Your task to perform on an android device: open app "Expedia: Hotels, Flights & Car" (install if not already installed) and go to login screen Image 0: 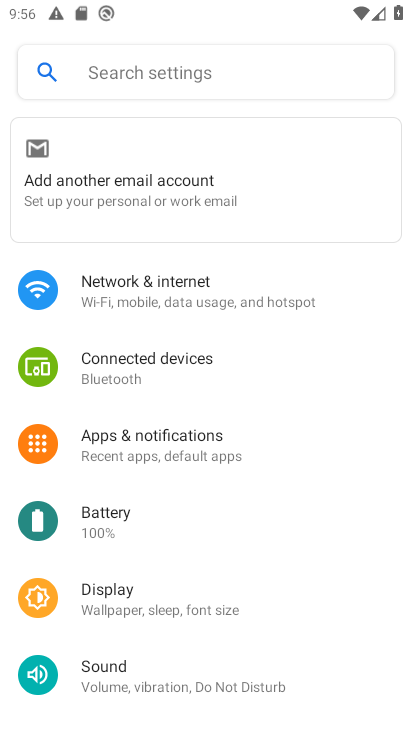
Step 0: press home button
Your task to perform on an android device: open app "Expedia: Hotels, Flights & Car" (install if not already installed) and go to login screen Image 1: 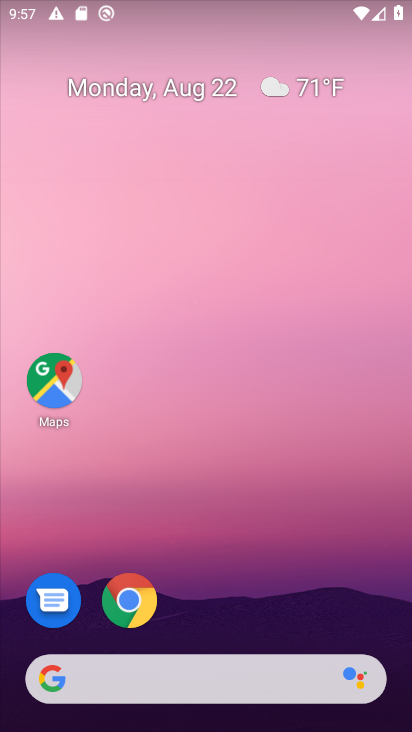
Step 1: drag from (202, 563) to (187, 229)
Your task to perform on an android device: open app "Expedia: Hotels, Flights & Car" (install if not already installed) and go to login screen Image 2: 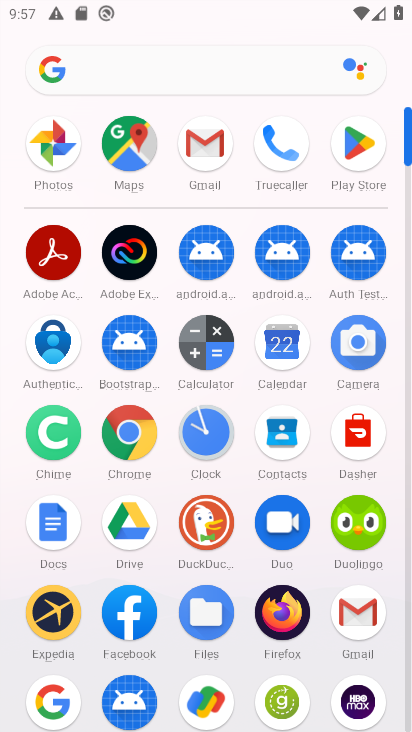
Step 2: click (363, 150)
Your task to perform on an android device: open app "Expedia: Hotels, Flights & Car" (install if not already installed) and go to login screen Image 3: 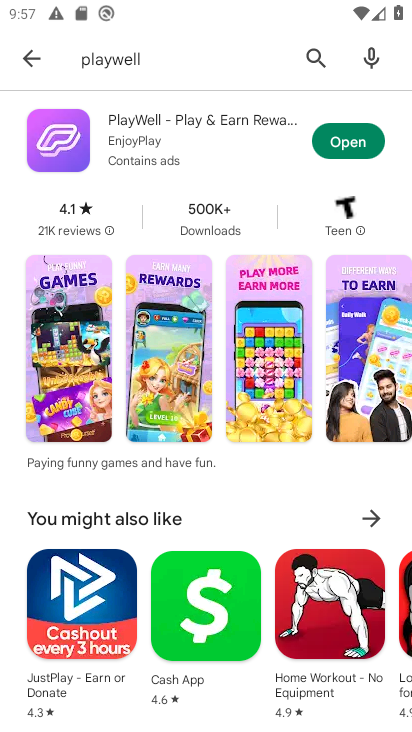
Step 3: click (317, 57)
Your task to perform on an android device: open app "Expedia: Hotels, Flights & Car" (install if not already installed) and go to login screen Image 4: 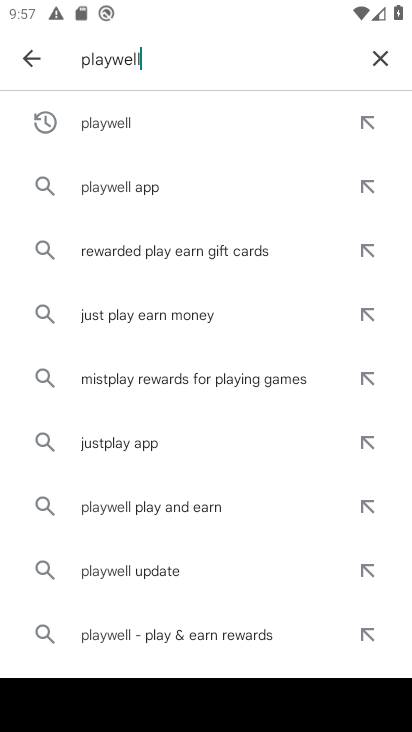
Step 4: click (371, 49)
Your task to perform on an android device: open app "Expedia: Hotels, Flights & Car" (install if not already installed) and go to login screen Image 5: 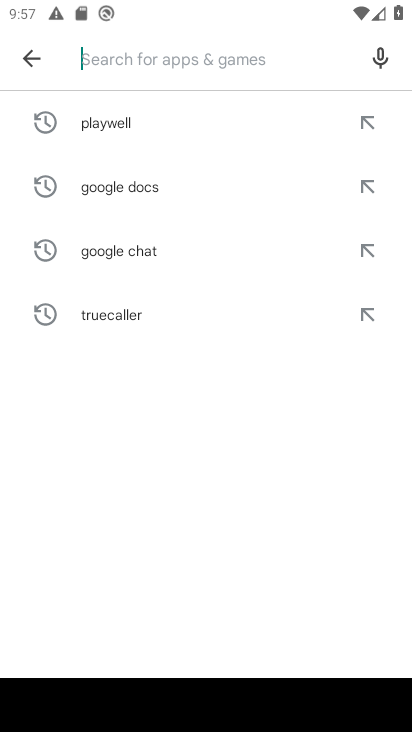
Step 5: type "Expedia: Hotels, Flights & Car"
Your task to perform on an android device: open app "Expedia: Hotels, Flights & Car" (install if not already installed) and go to login screen Image 6: 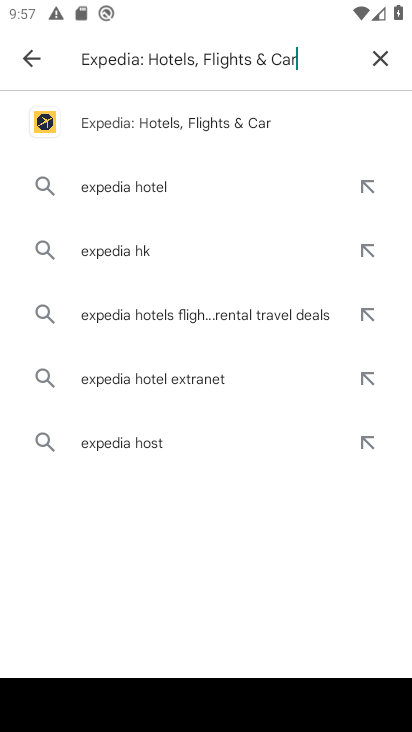
Step 6: type ""
Your task to perform on an android device: open app "Expedia: Hotels, Flights & Car" (install if not already installed) and go to login screen Image 7: 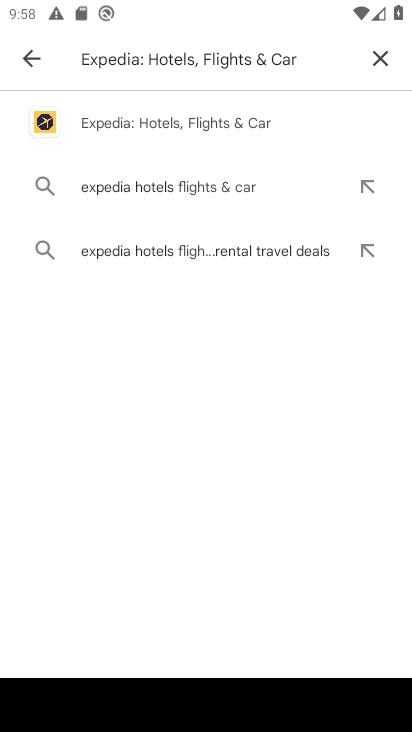
Step 7: click (222, 122)
Your task to perform on an android device: open app "Expedia: Hotels, Flights & Car" (install if not already installed) and go to login screen Image 8: 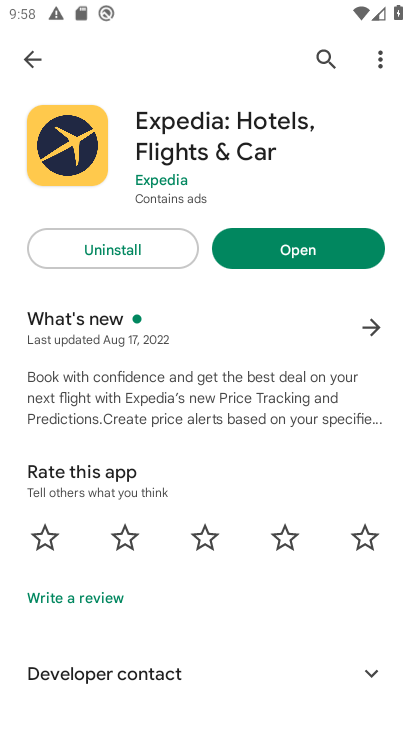
Step 8: click (334, 240)
Your task to perform on an android device: open app "Expedia: Hotels, Flights & Car" (install if not already installed) and go to login screen Image 9: 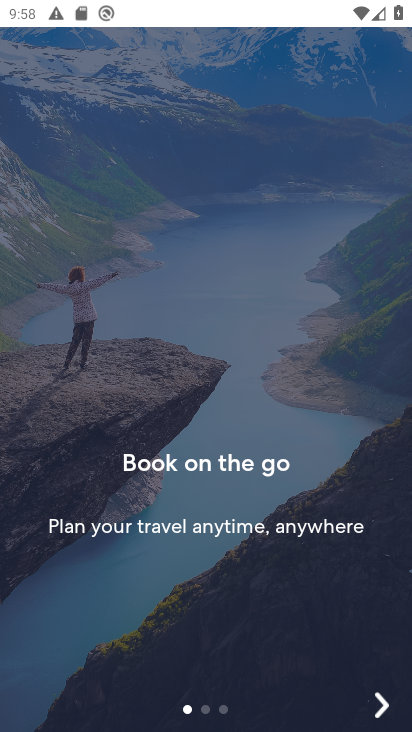
Step 9: task complete